Your task to perform on an android device: check storage Image 0: 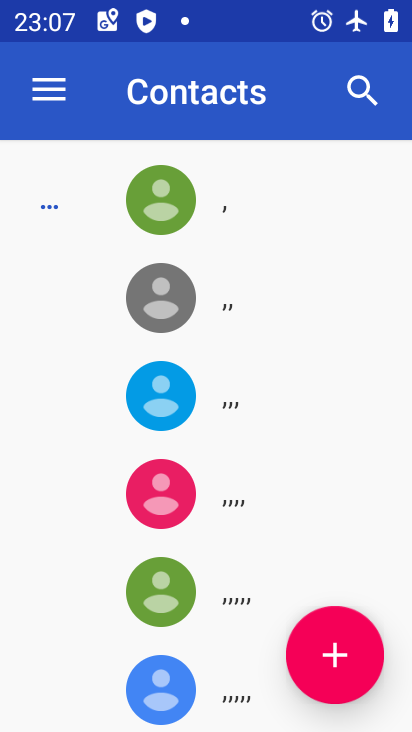
Step 0: press home button
Your task to perform on an android device: check storage Image 1: 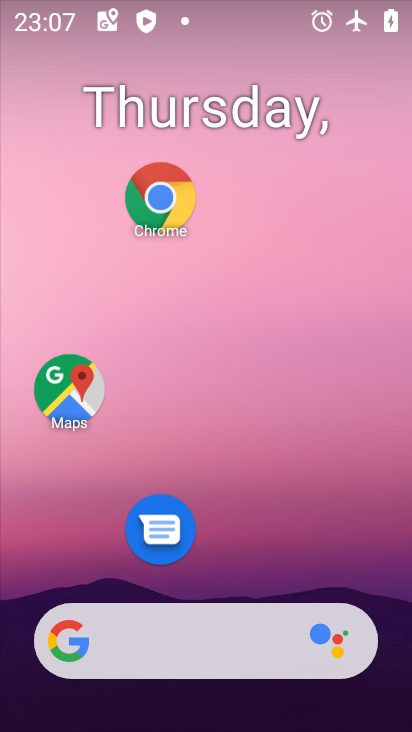
Step 1: drag from (275, 485) to (243, 42)
Your task to perform on an android device: check storage Image 2: 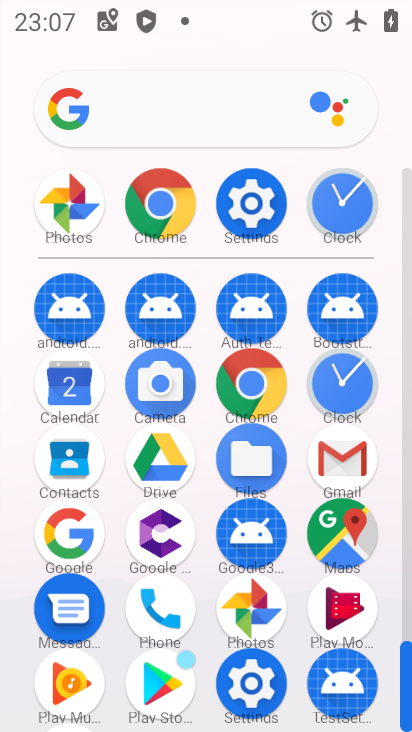
Step 2: click (256, 210)
Your task to perform on an android device: check storage Image 3: 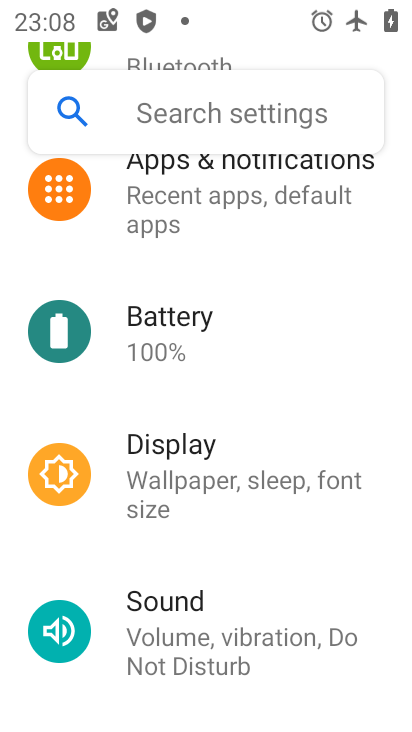
Step 3: drag from (233, 569) to (233, 160)
Your task to perform on an android device: check storage Image 4: 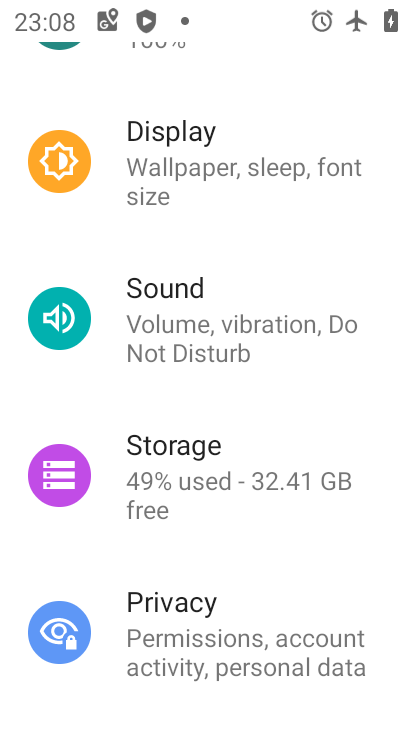
Step 4: click (175, 449)
Your task to perform on an android device: check storage Image 5: 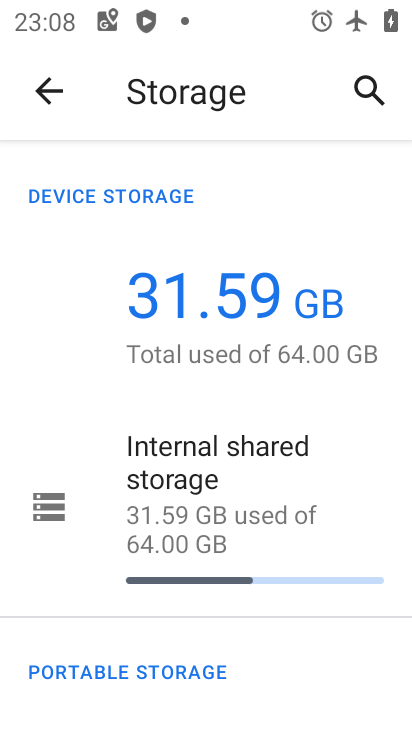
Step 5: task complete